Your task to perform on an android device: open sync settings in chrome Image 0: 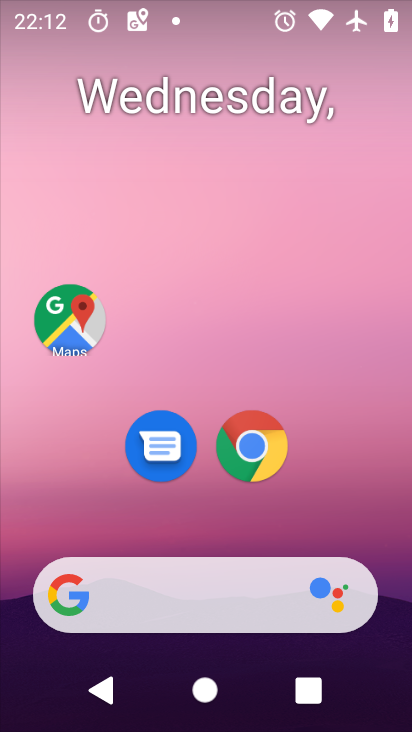
Step 0: press home button
Your task to perform on an android device: open sync settings in chrome Image 1: 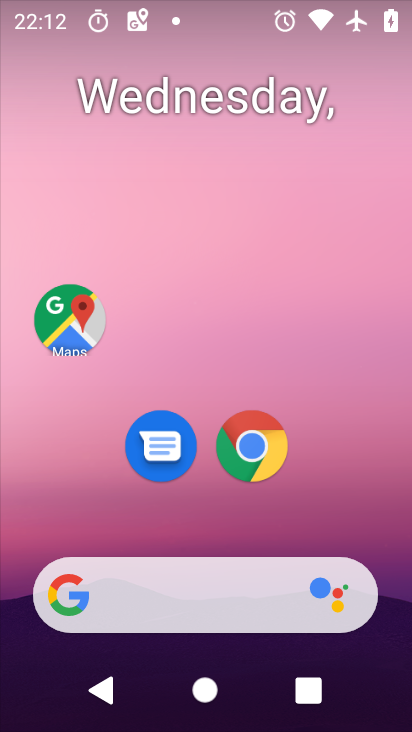
Step 1: click (251, 457)
Your task to perform on an android device: open sync settings in chrome Image 2: 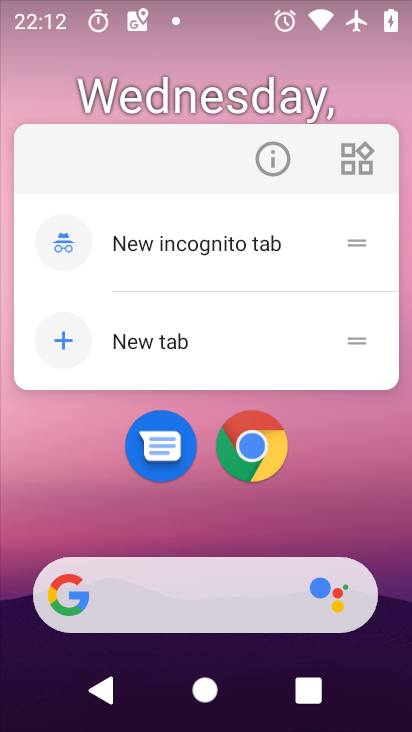
Step 2: click (251, 456)
Your task to perform on an android device: open sync settings in chrome Image 3: 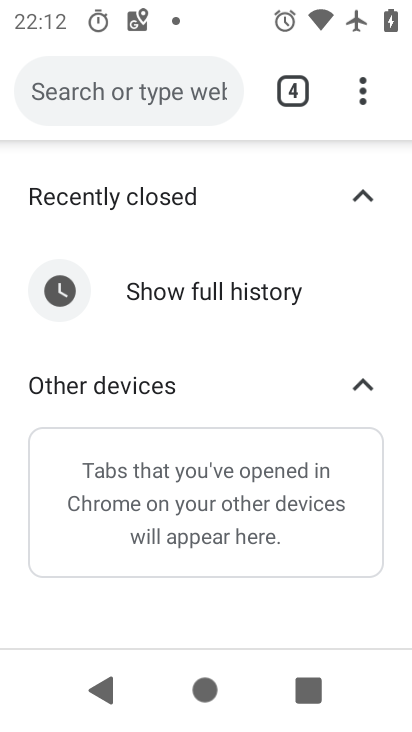
Step 3: drag from (359, 95) to (232, 478)
Your task to perform on an android device: open sync settings in chrome Image 4: 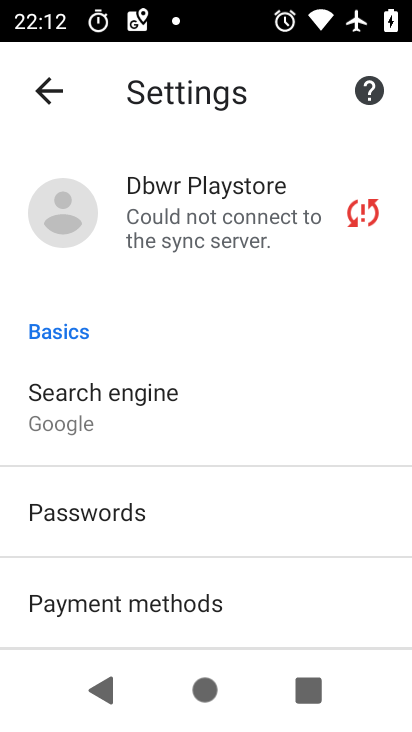
Step 4: drag from (213, 573) to (299, 284)
Your task to perform on an android device: open sync settings in chrome Image 5: 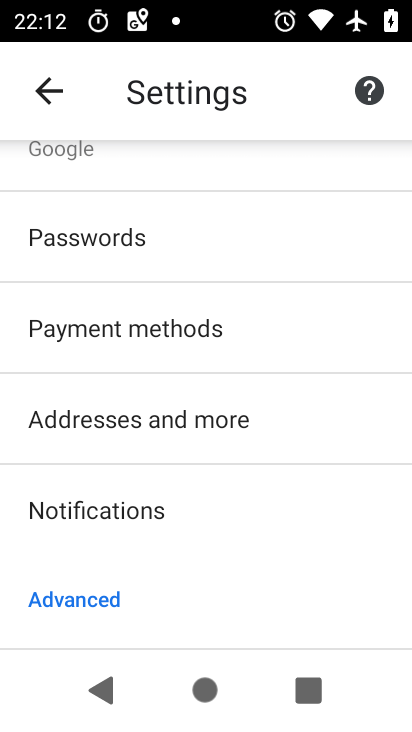
Step 5: drag from (310, 183) to (237, 680)
Your task to perform on an android device: open sync settings in chrome Image 6: 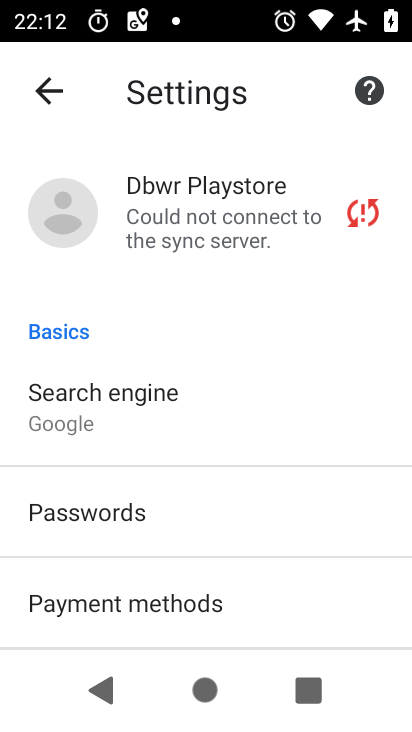
Step 6: click (202, 209)
Your task to perform on an android device: open sync settings in chrome Image 7: 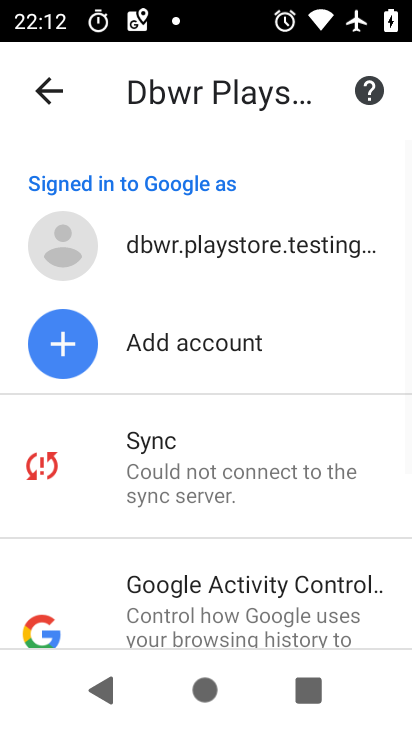
Step 7: click (230, 474)
Your task to perform on an android device: open sync settings in chrome Image 8: 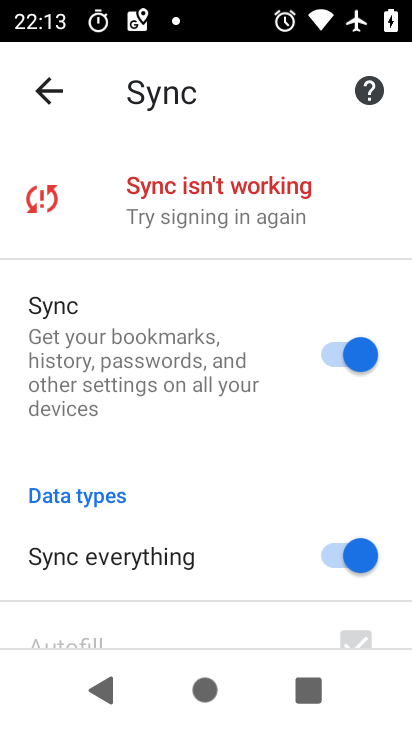
Step 8: task complete